Your task to perform on an android device: star an email in the gmail app Image 0: 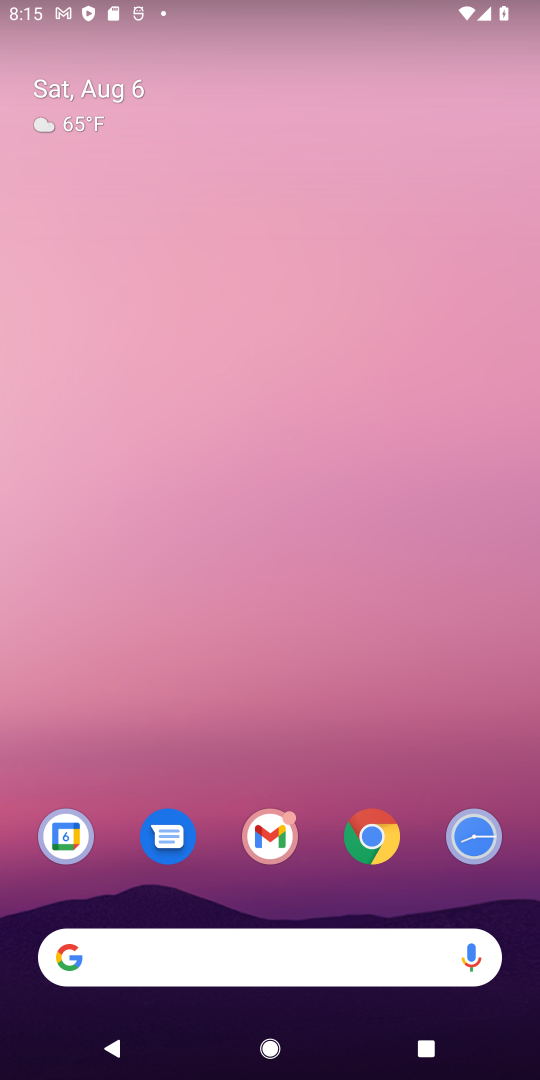
Step 0: drag from (417, 856) to (254, 94)
Your task to perform on an android device: star an email in the gmail app Image 1: 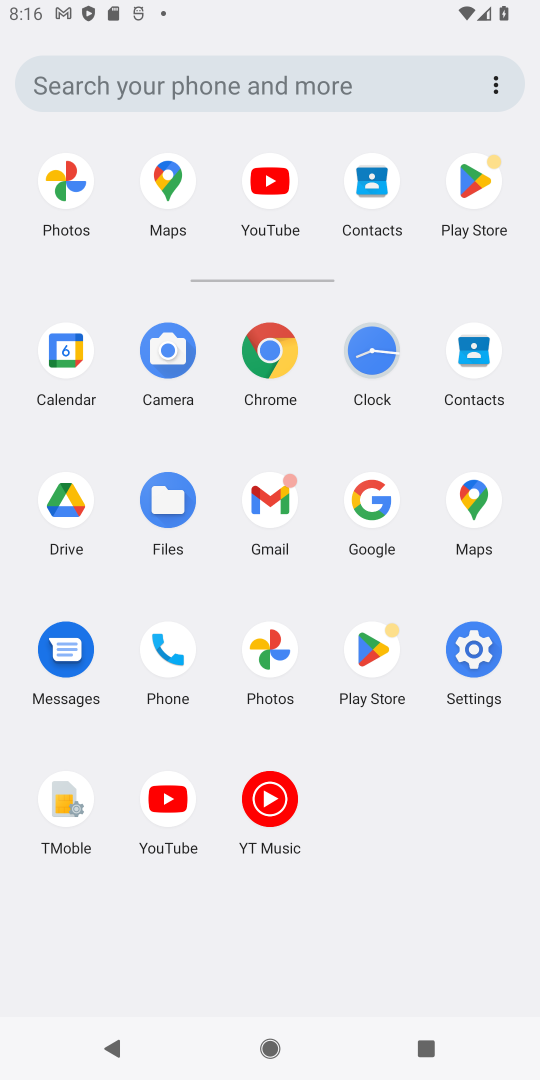
Step 1: click (267, 502)
Your task to perform on an android device: star an email in the gmail app Image 2: 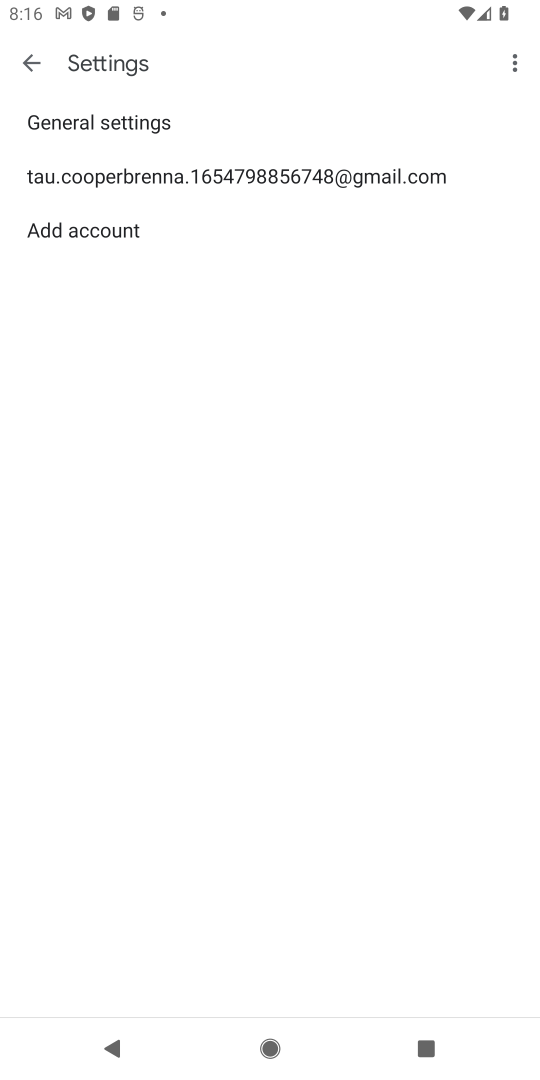
Step 2: press back button
Your task to perform on an android device: star an email in the gmail app Image 3: 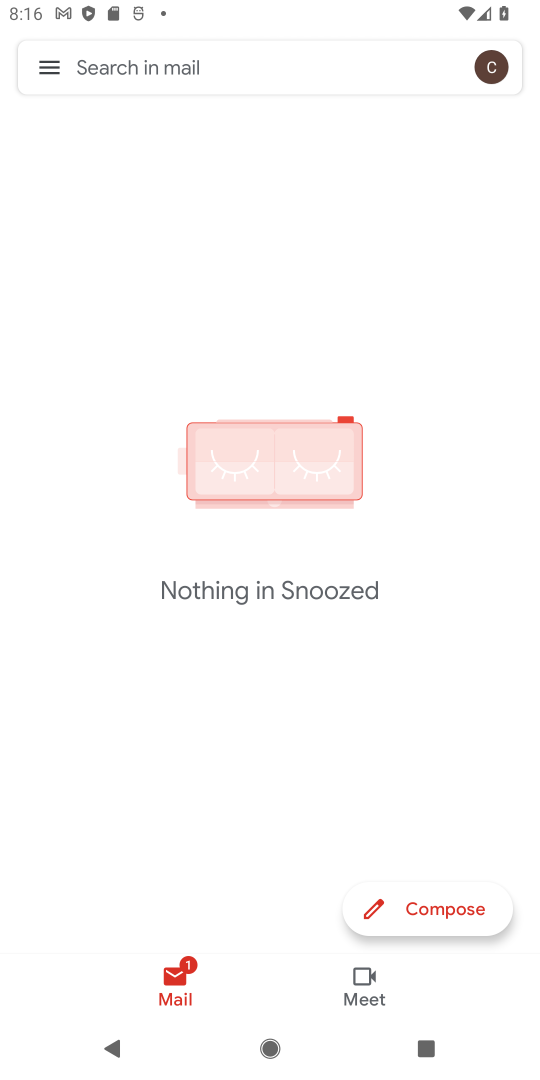
Step 3: click (46, 88)
Your task to perform on an android device: star an email in the gmail app Image 4: 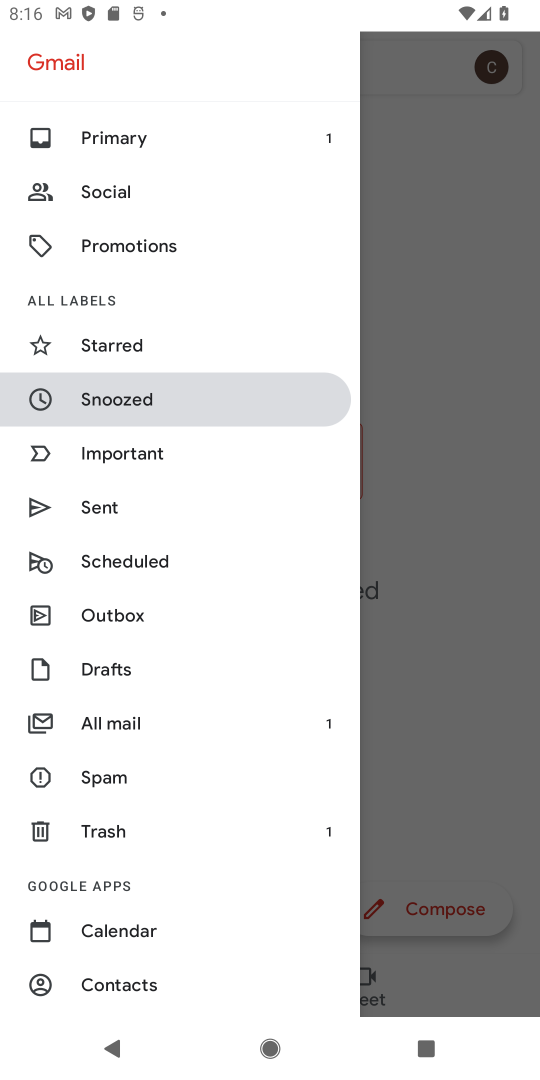
Step 4: click (120, 142)
Your task to perform on an android device: star an email in the gmail app Image 5: 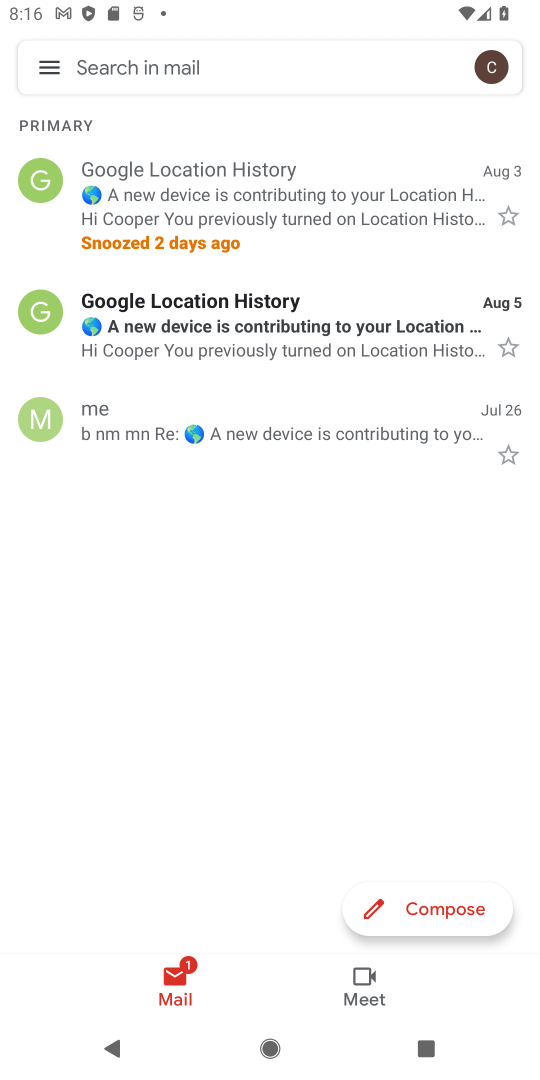
Step 5: click (511, 221)
Your task to perform on an android device: star an email in the gmail app Image 6: 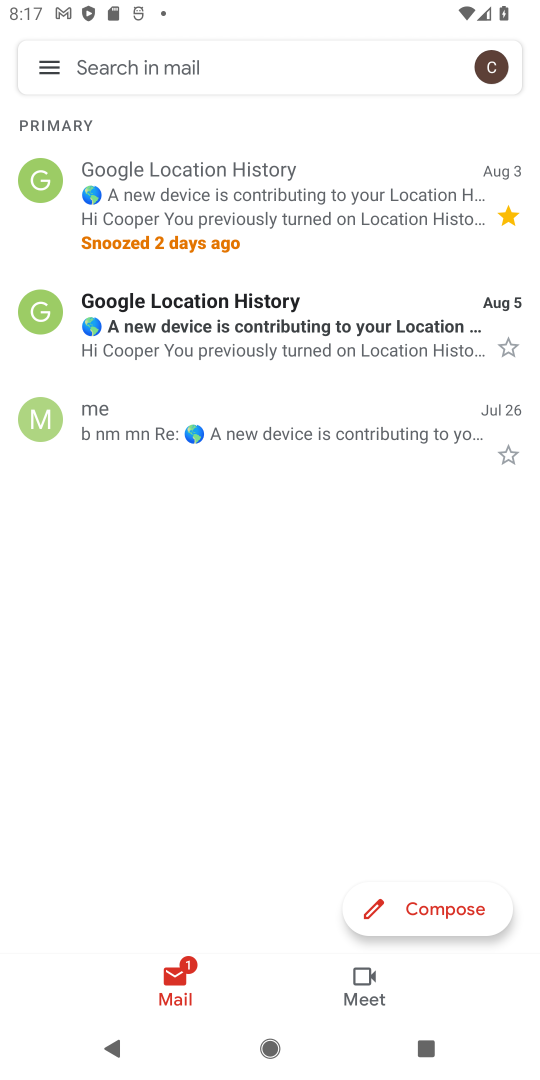
Step 6: task complete